Your task to perform on an android device: set an alarm Image 0: 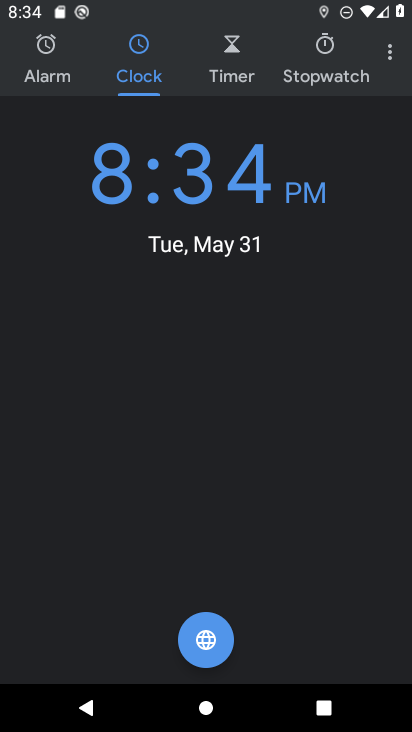
Step 0: press home button
Your task to perform on an android device: set an alarm Image 1: 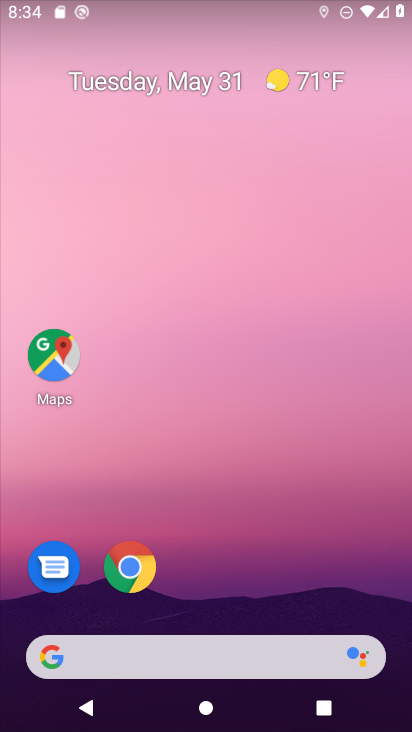
Step 1: drag from (193, 602) to (179, 289)
Your task to perform on an android device: set an alarm Image 2: 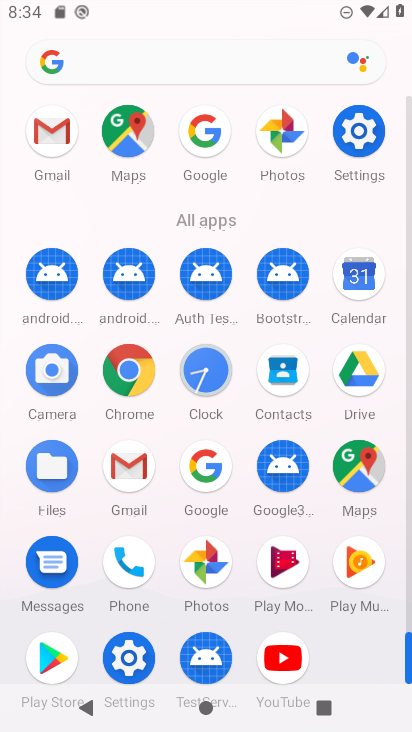
Step 2: click (203, 364)
Your task to perform on an android device: set an alarm Image 3: 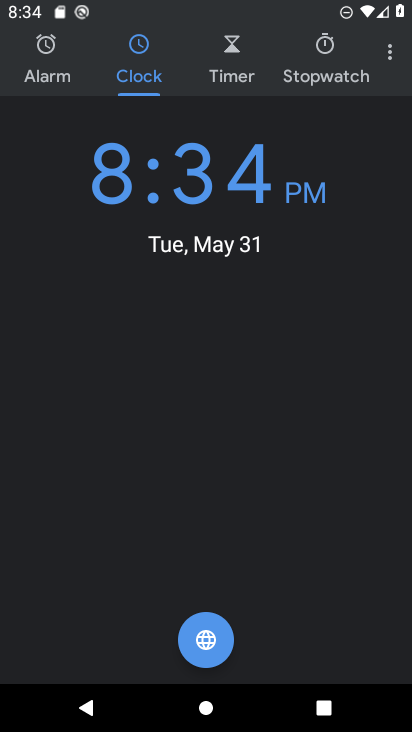
Step 3: click (28, 71)
Your task to perform on an android device: set an alarm Image 4: 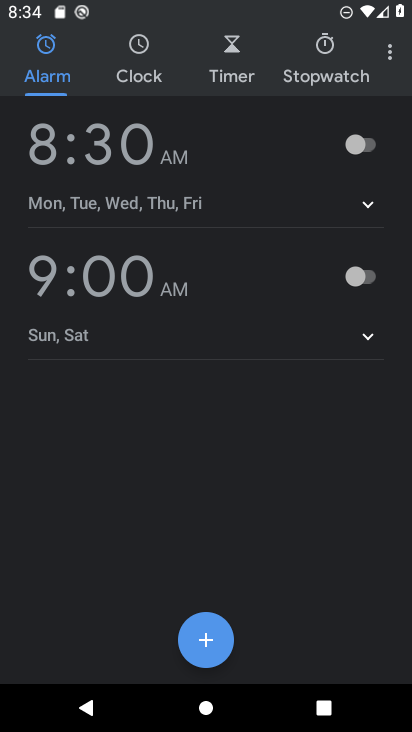
Step 4: click (213, 642)
Your task to perform on an android device: set an alarm Image 5: 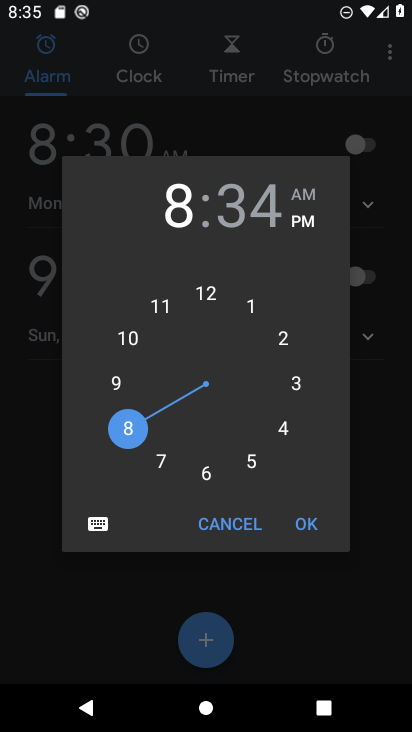
Step 5: click (204, 295)
Your task to perform on an android device: set an alarm Image 6: 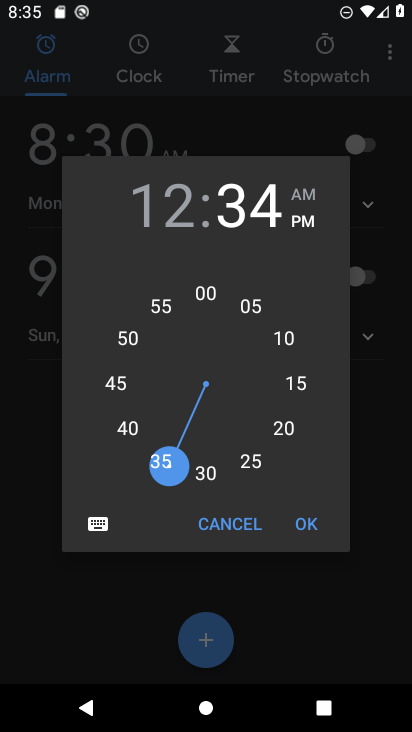
Step 6: click (282, 439)
Your task to perform on an android device: set an alarm Image 7: 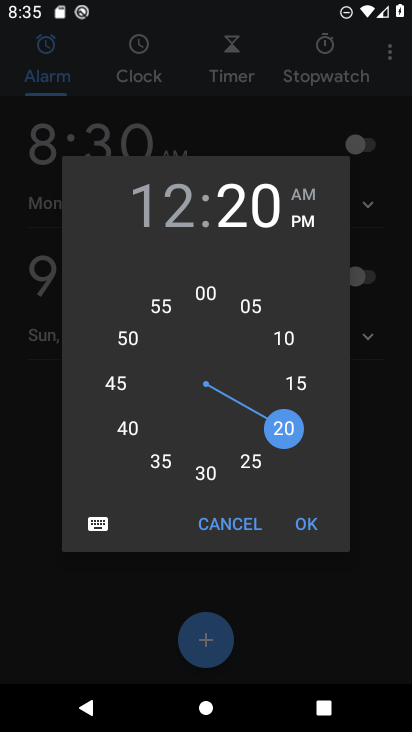
Step 7: click (302, 526)
Your task to perform on an android device: set an alarm Image 8: 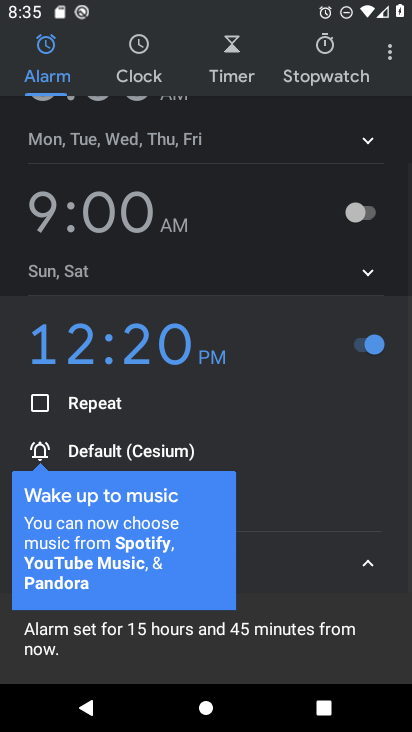
Step 8: task complete